Your task to perform on an android device: When is my next meeting? Image 0: 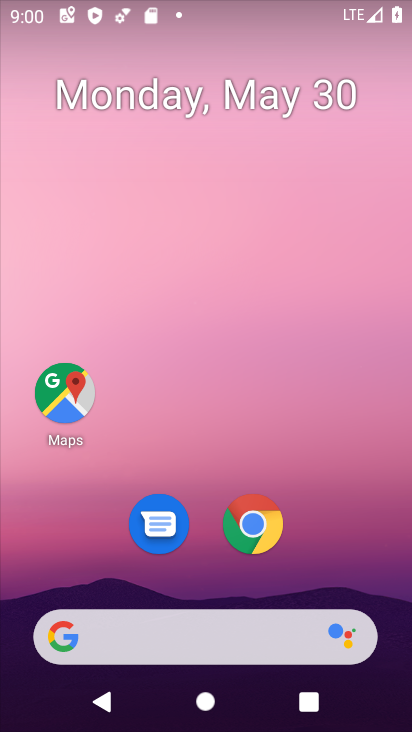
Step 0: drag from (217, 448) to (202, 20)
Your task to perform on an android device: When is my next meeting? Image 1: 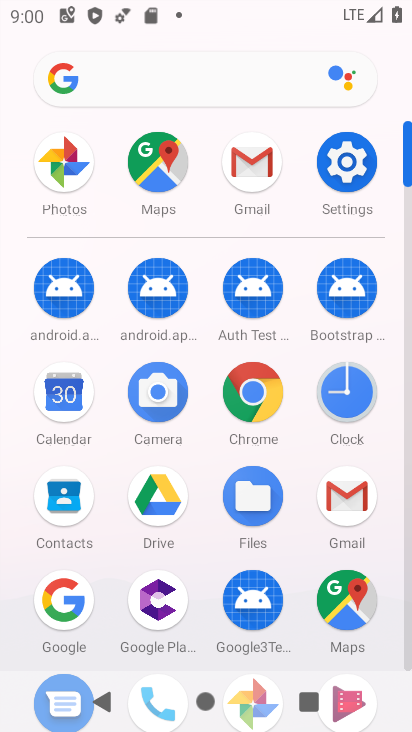
Step 1: click (53, 405)
Your task to perform on an android device: When is my next meeting? Image 2: 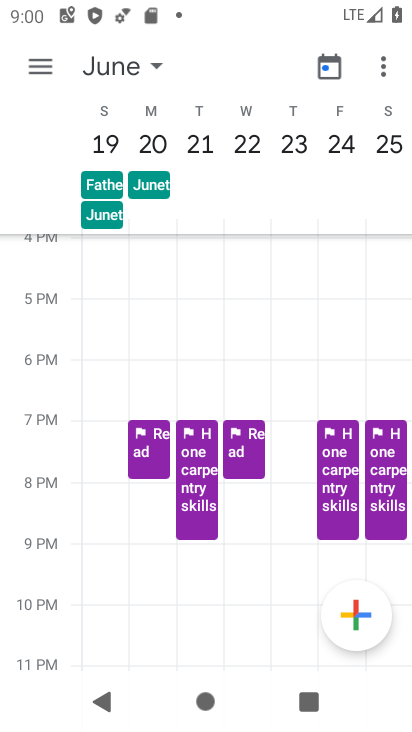
Step 2: drag from (115, 286) to (408, 320)
Your task to perform on an android device: When is my next meeting? Image 3: 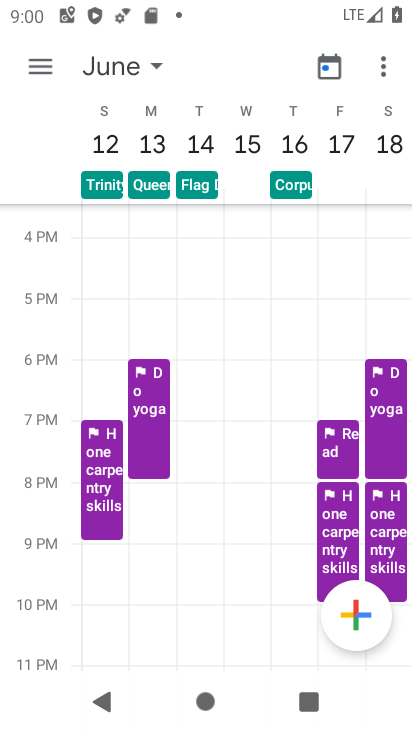
Step 3: drag from (107, 324) to (403, 319)
Your task to perform on an android device: When is my next meeting? Image 4: 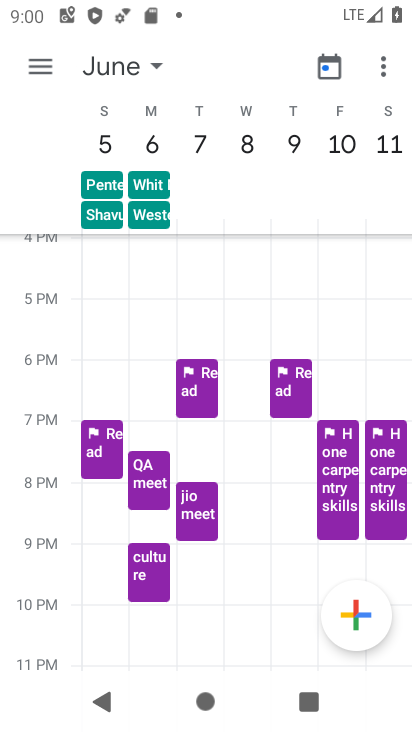
Step 4: drag from (97, 326) to (402, 336)
Your task to perform on an android device: When is my next meeting? Image 5: 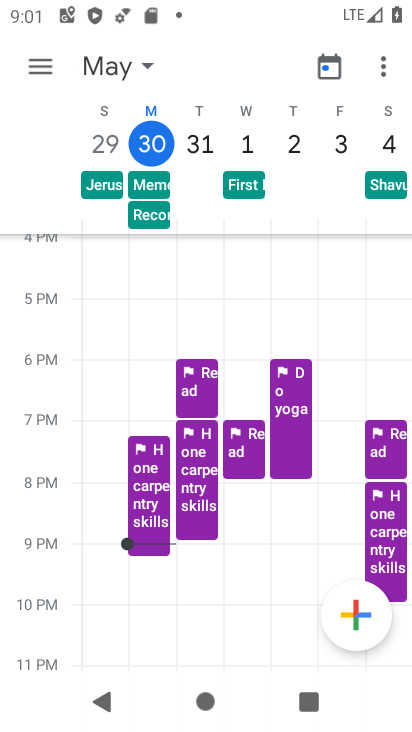
Step 5: click (160, 144)
Your task to perform on an android device: When is my next meeting? Image 6: 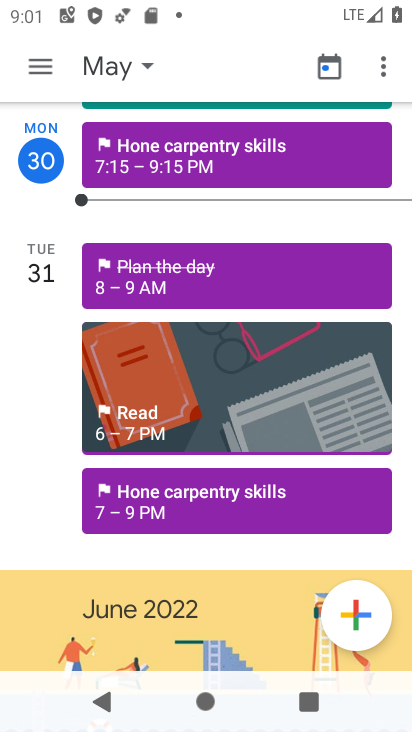
Step 6: task complete